Your task to perform on an android device: See recent photos Image 0: 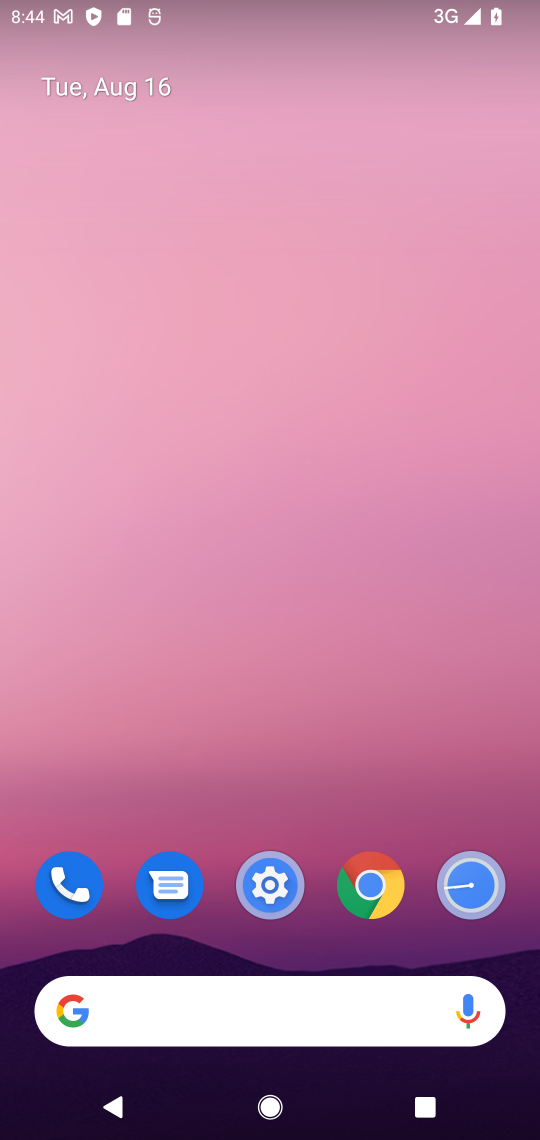
Step 0: drag from (263, 686) to (294, 148)
Your task to perform on an android device: See recent photos Image 1: 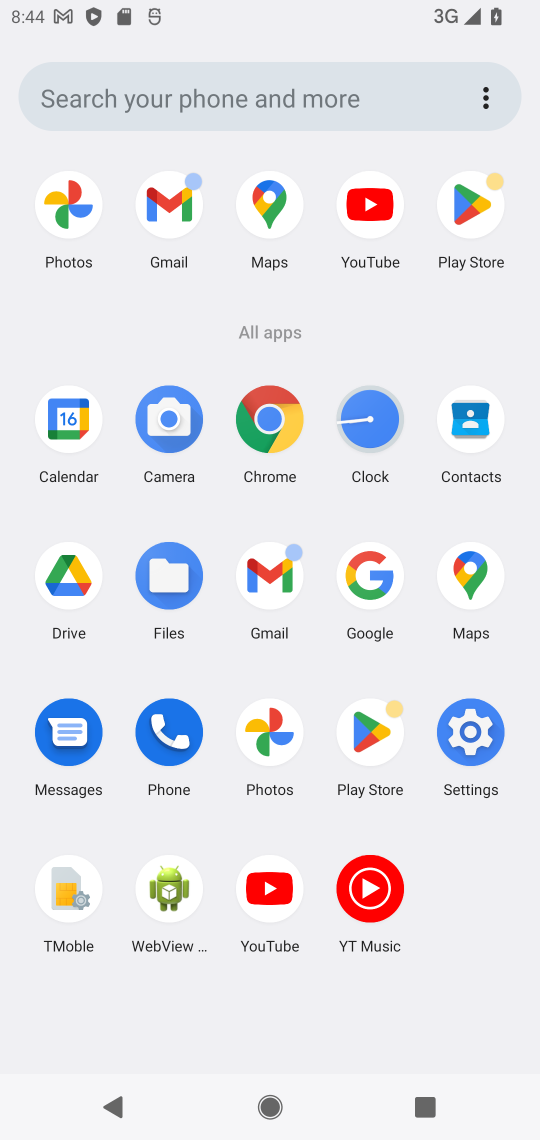
Step 1: click (267, 743)
Your task to perform on an android device: See recent photos Image 2: 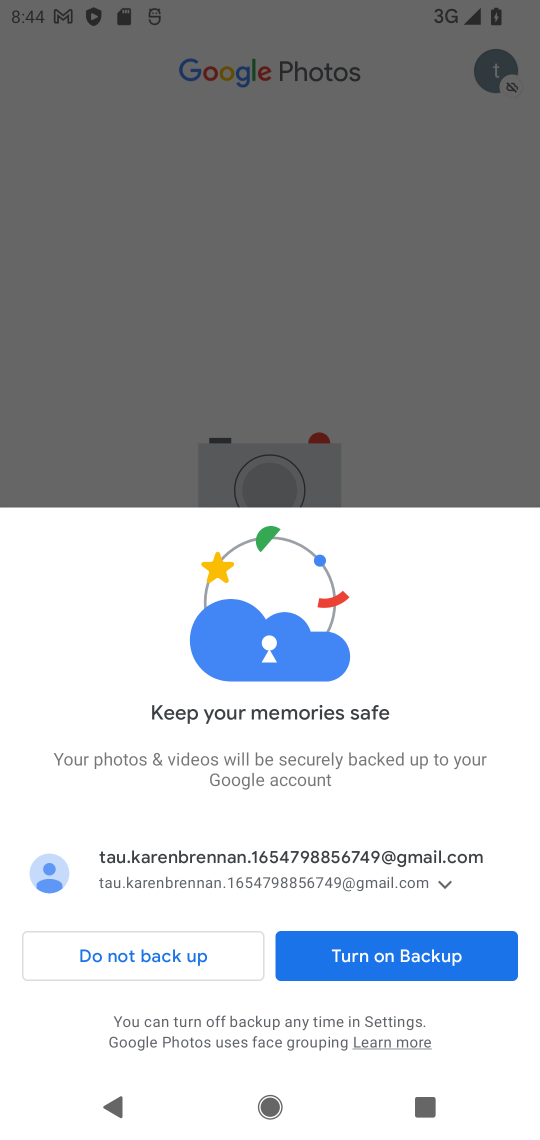
Step 2: click (375, 961)
Your task to perform on an android device: See recent photos Image 3: 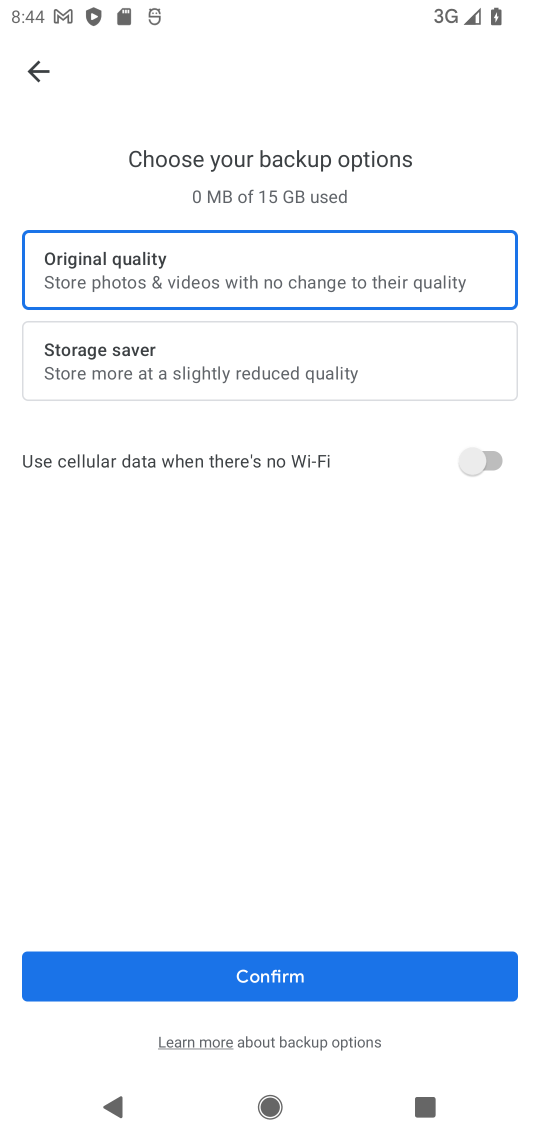
Step 3: click (262, 978)
Your task to perform on an android device: See recent photos Image 4: 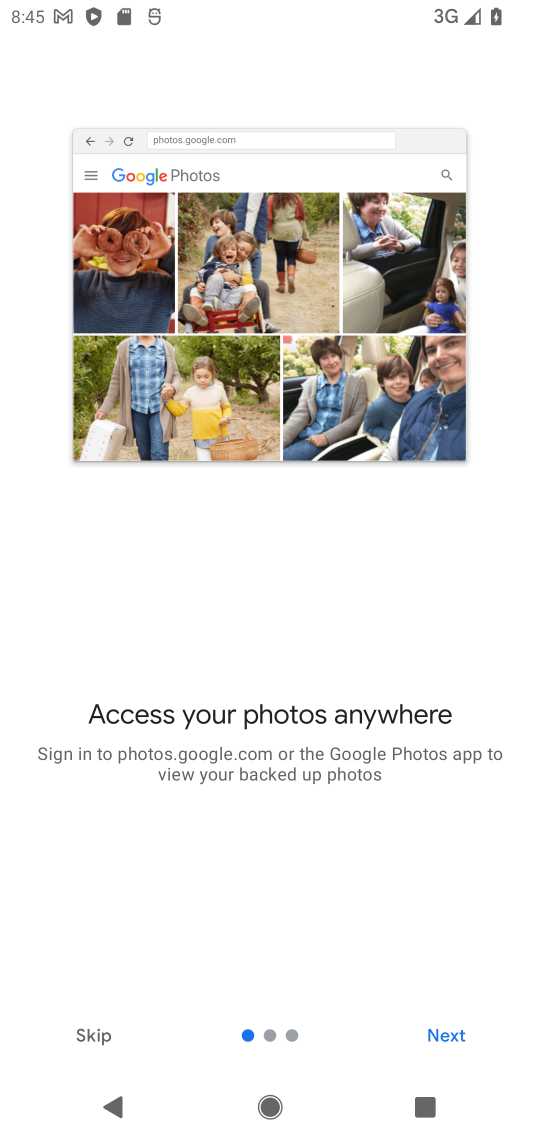
Step 4: click (471, 1030)
Your task to perform on an android device: See recent photos Image 5: 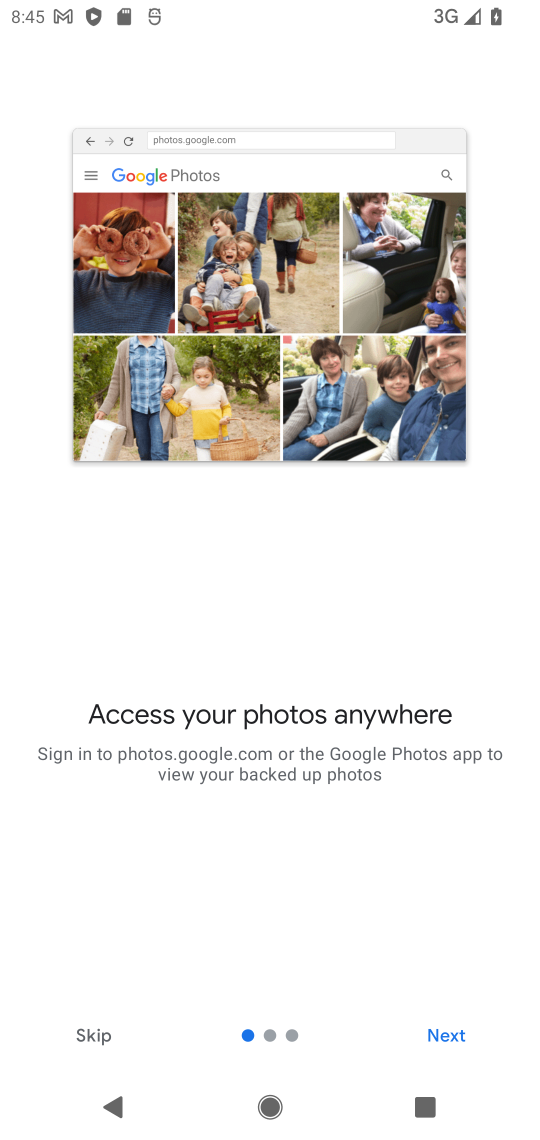
Step 5: click (471, 1030)
Your task to perform on an android device: See recent photos Image 6: 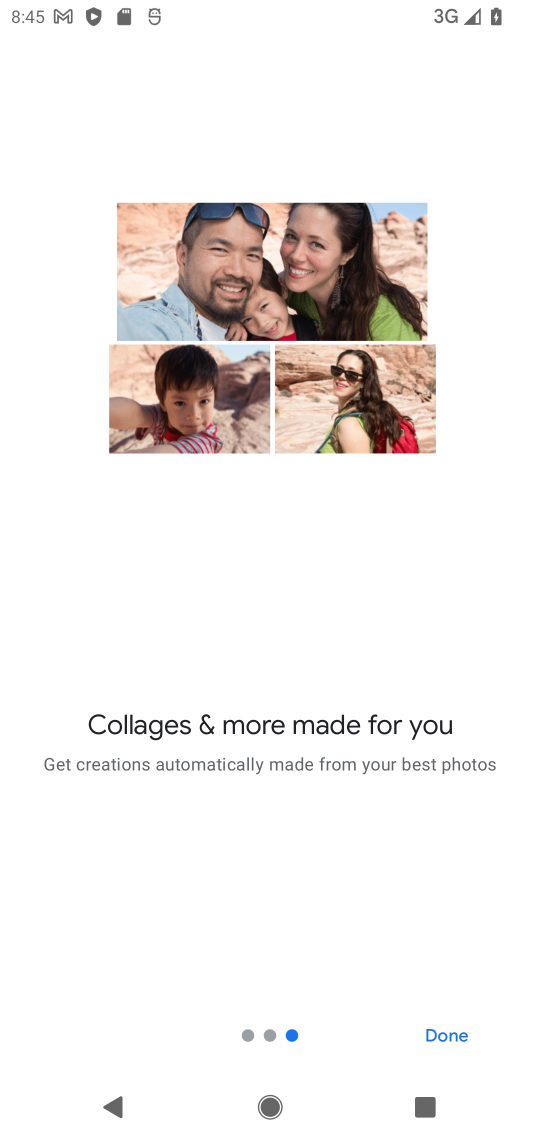
Step 6: click (444, 1032)
Your task to perform on an android device: See recent photos Image 7: 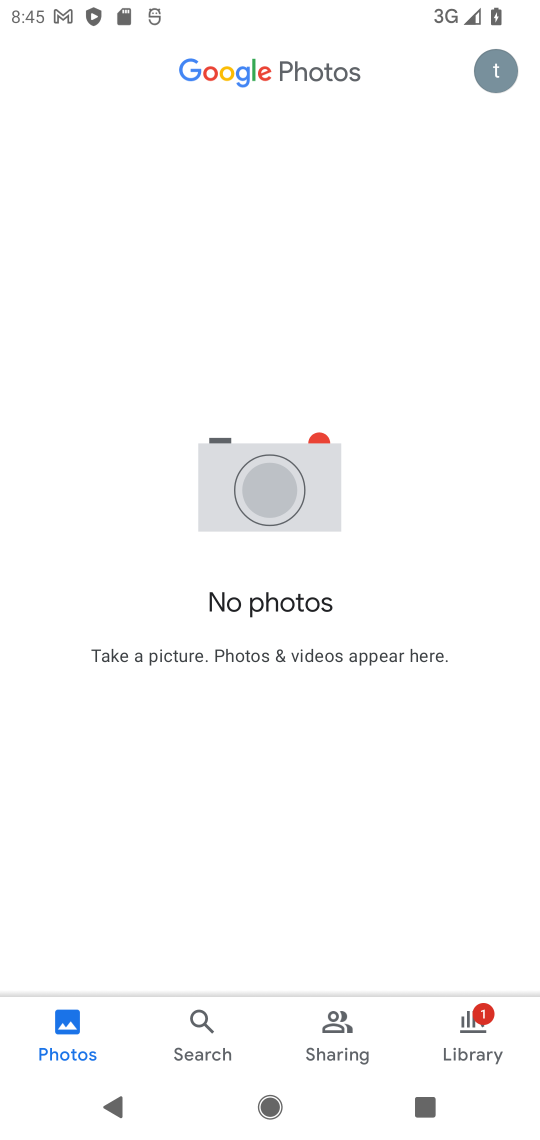
Step 7: task complete